Your task to perform on an android device: install app "Viber Messenger" Image 0: 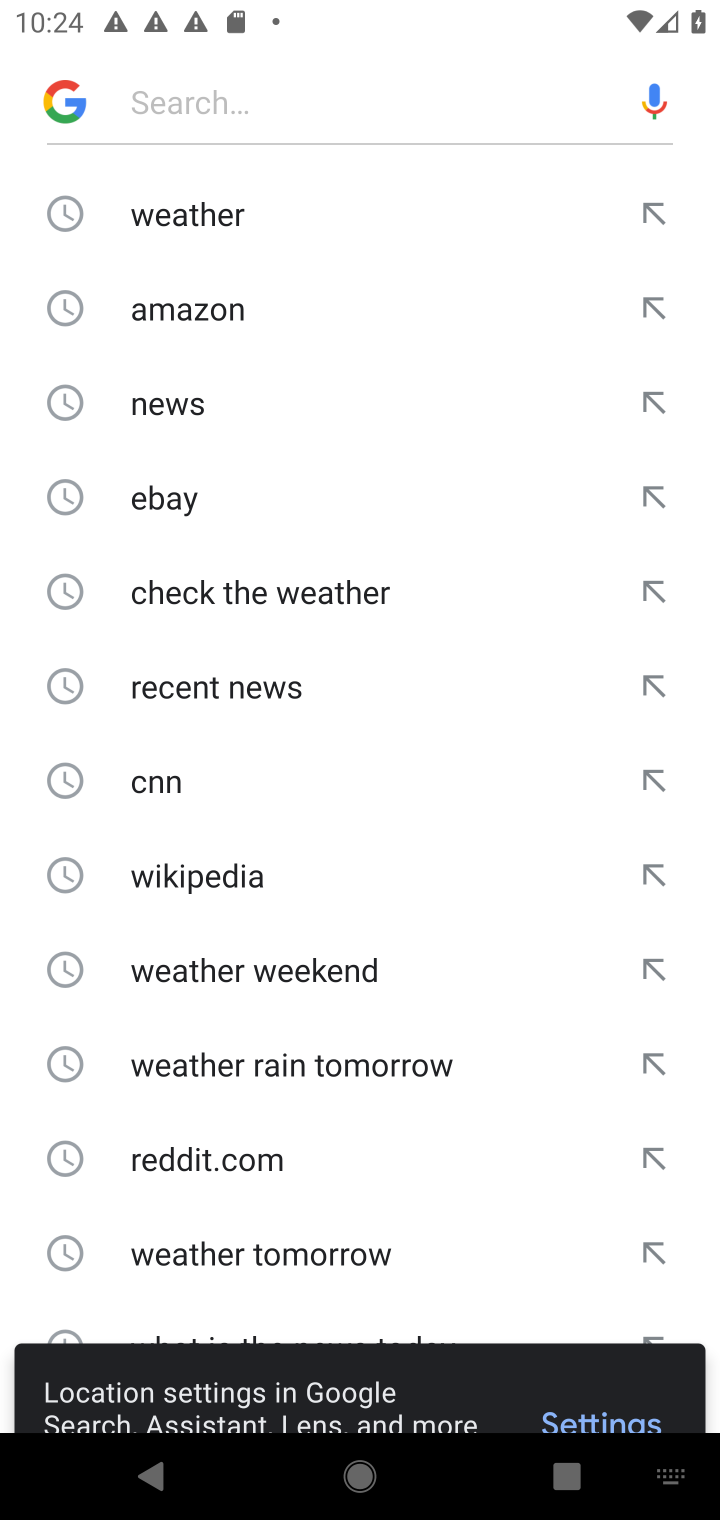
Step 0: press home button
Your task to perform on an android device: install app "Viber Messenger" Image 1: 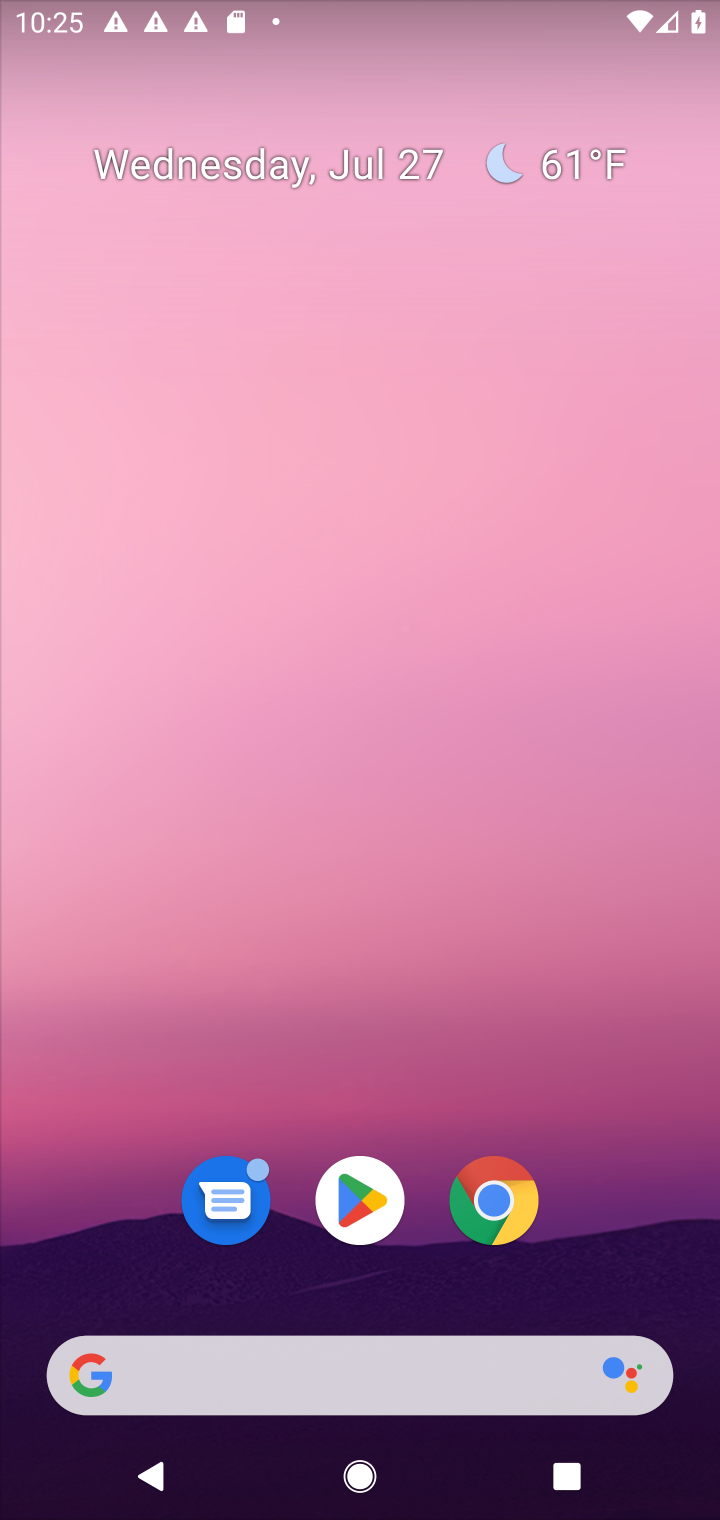
Step 1: click (348, 1195)
Your task to perform on an android device: install app "Viber Messenger" Image 2: 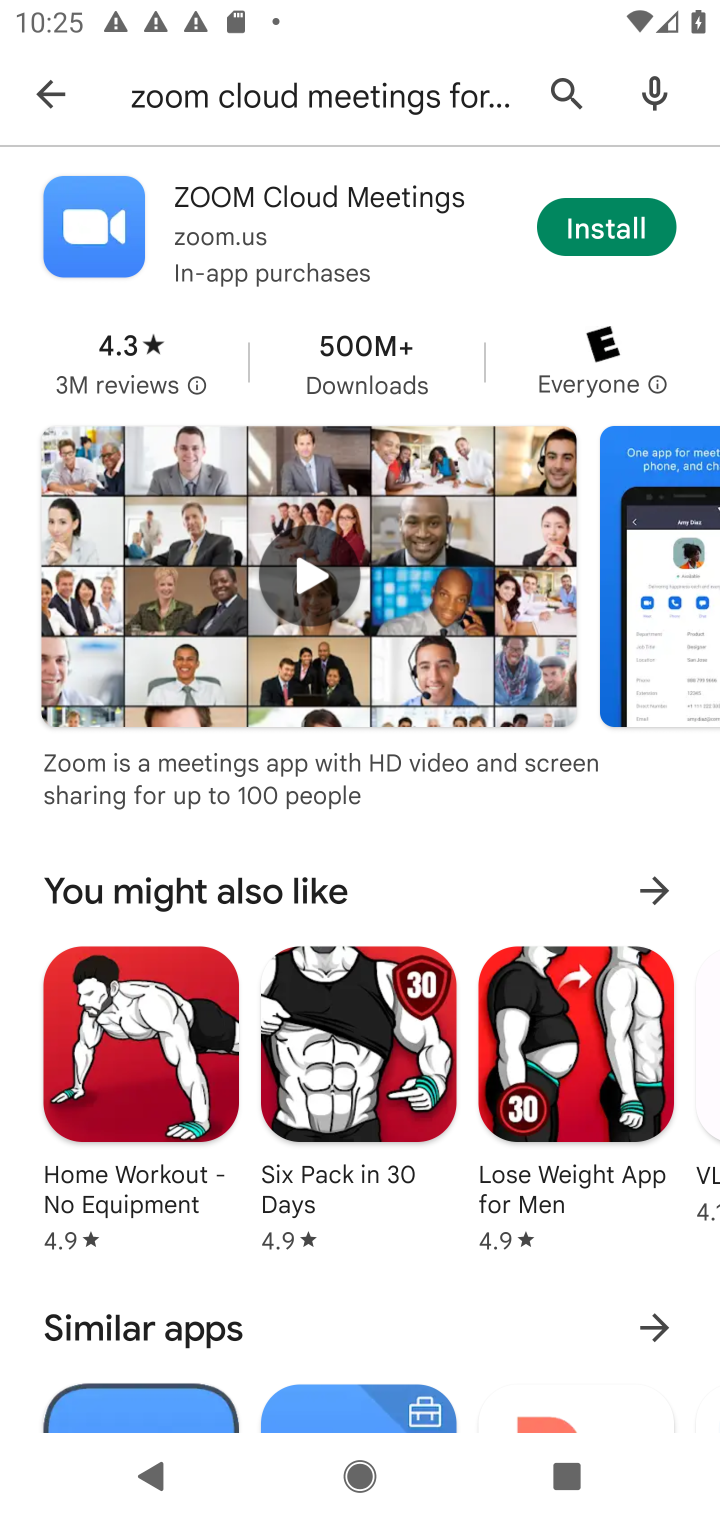
Step 2: click (559, 78)
Your task to perform on an android device: install app "Viber Messenger" Image 3: 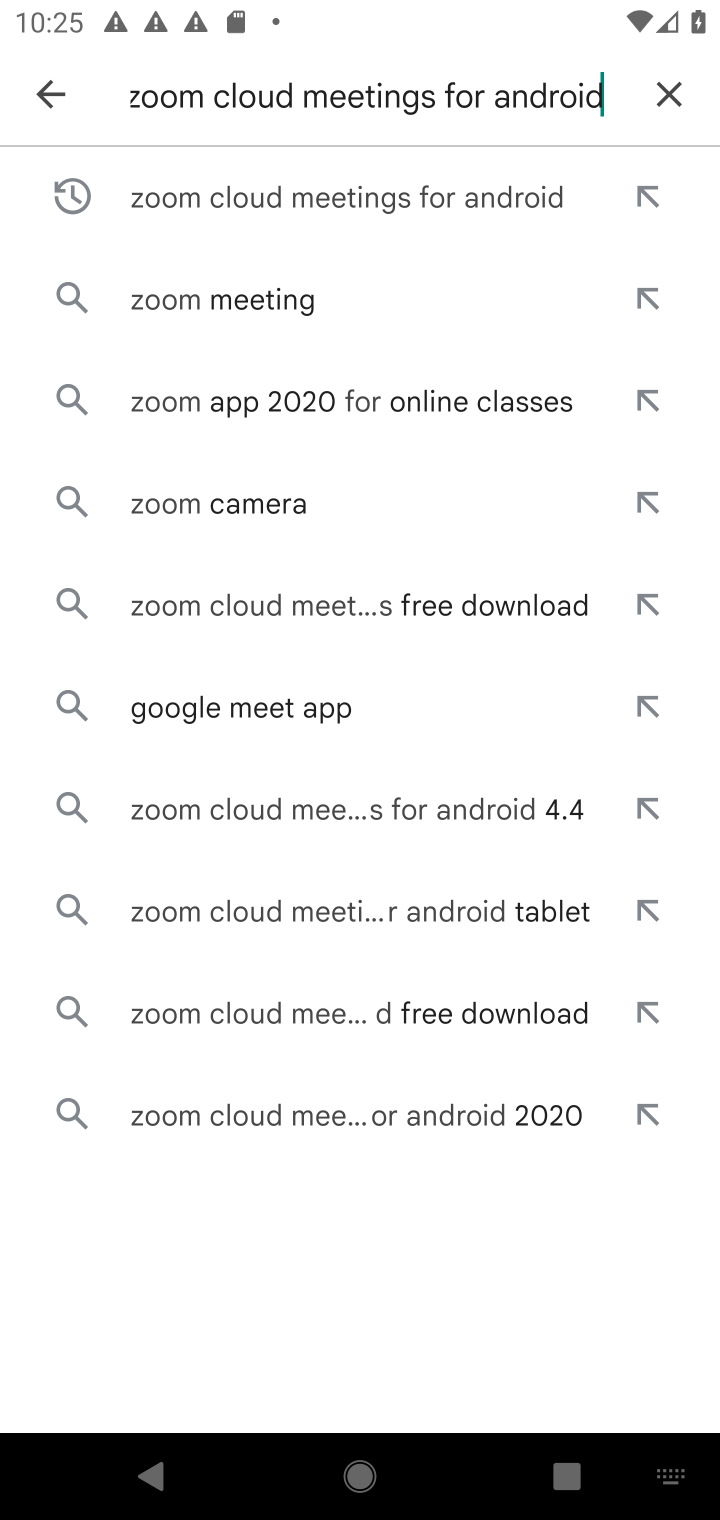
Step 3: click (667, 95)
Your task to perform on an android device: install app "Viber Messenger" Image 4: 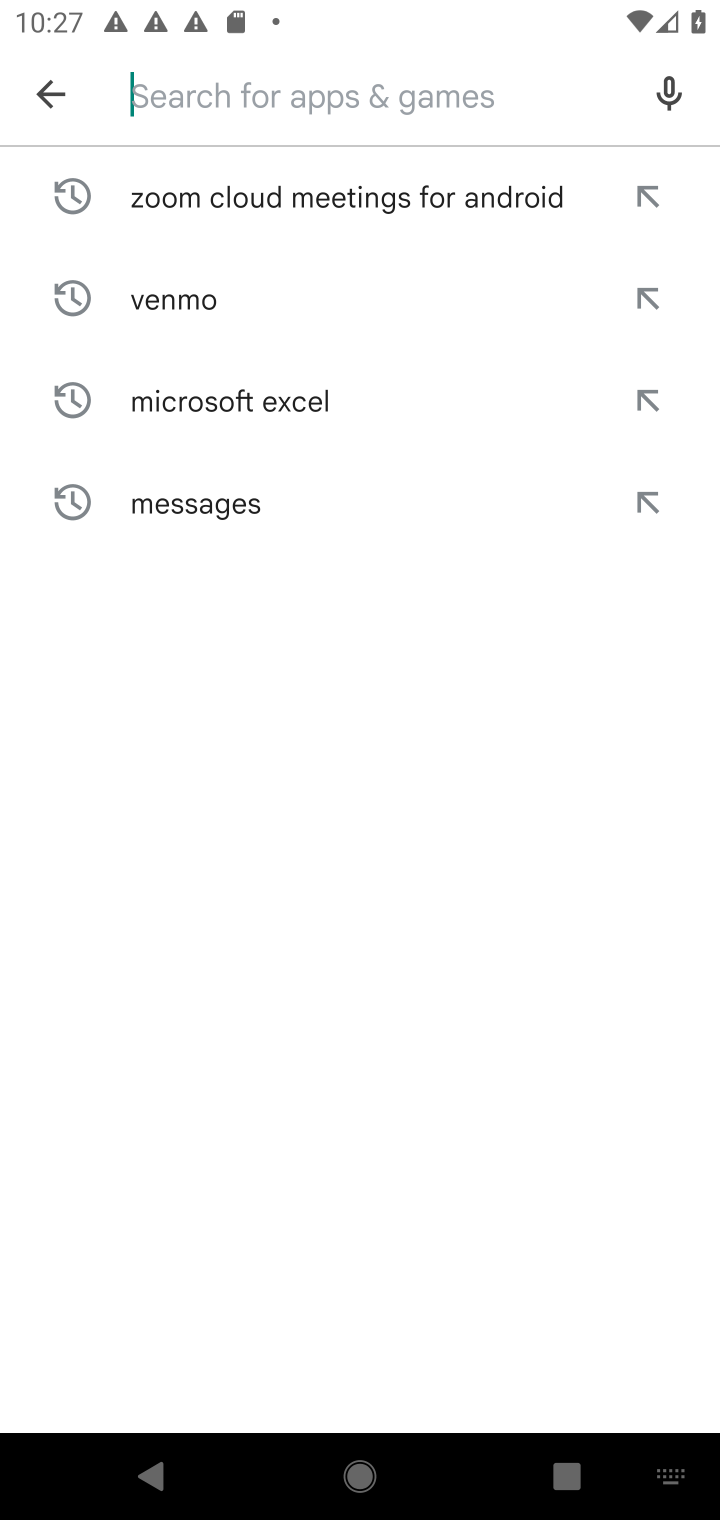
Step 4: type "viber messenger"
Your task to perform on an android device: install app "Viber Messenger" Image 5: 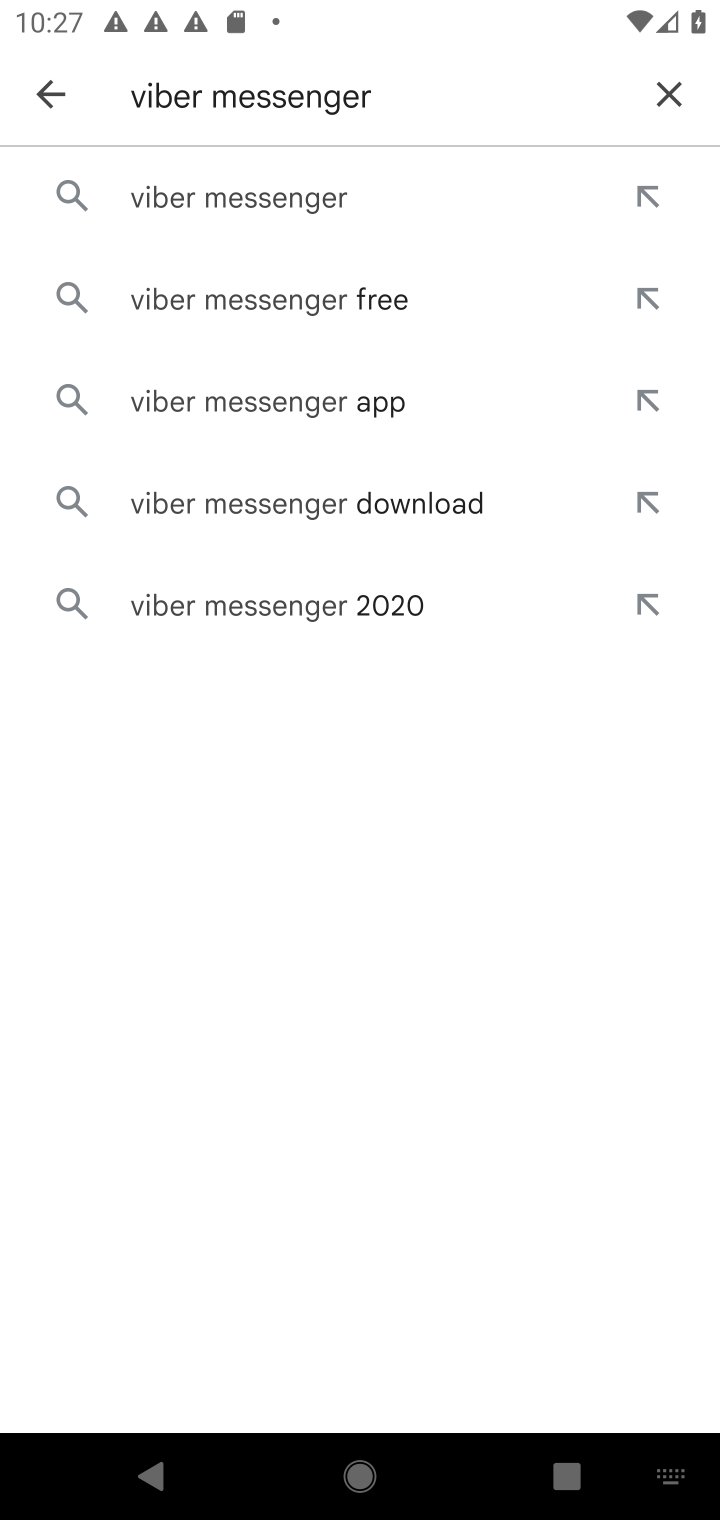
Step 5: click (273, 182)
Your task to perform on an android device: install app "Viber Messenger" Image 6: 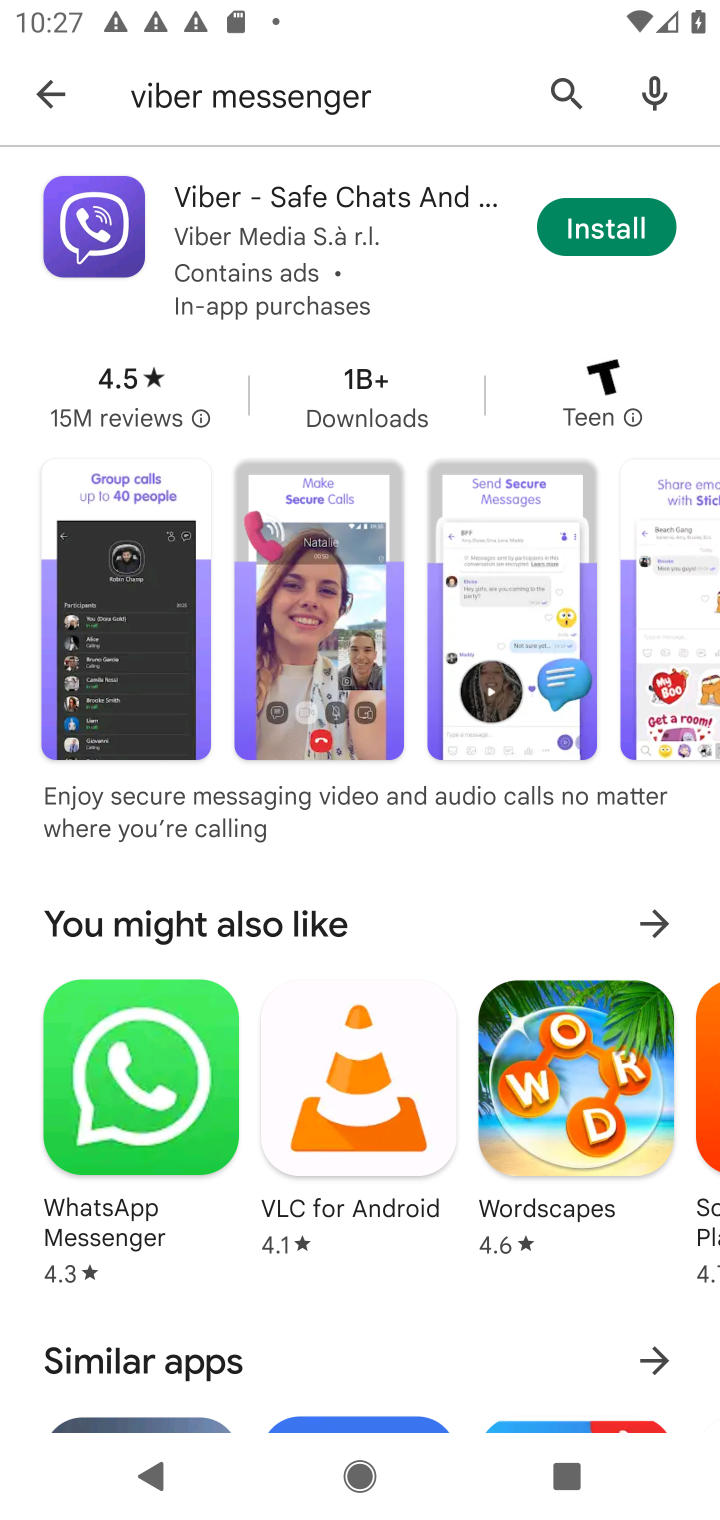
Step 6: click (593, 221)
Your task to perform on an android device: install app "Viber Messenger" Image 7: 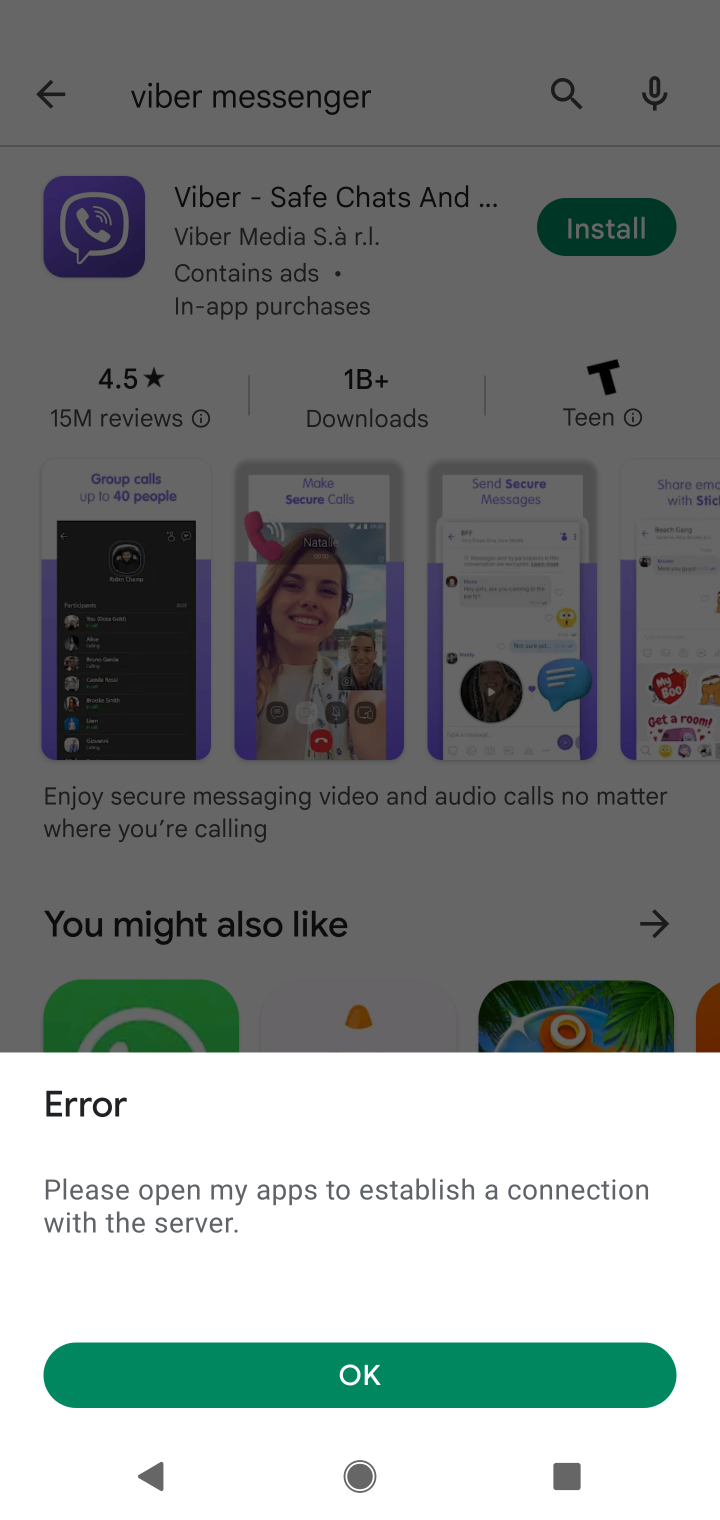
Step 7: click (356, 1359)
Your task to perform on an android device: install app "Viber Messenger" Image 8: 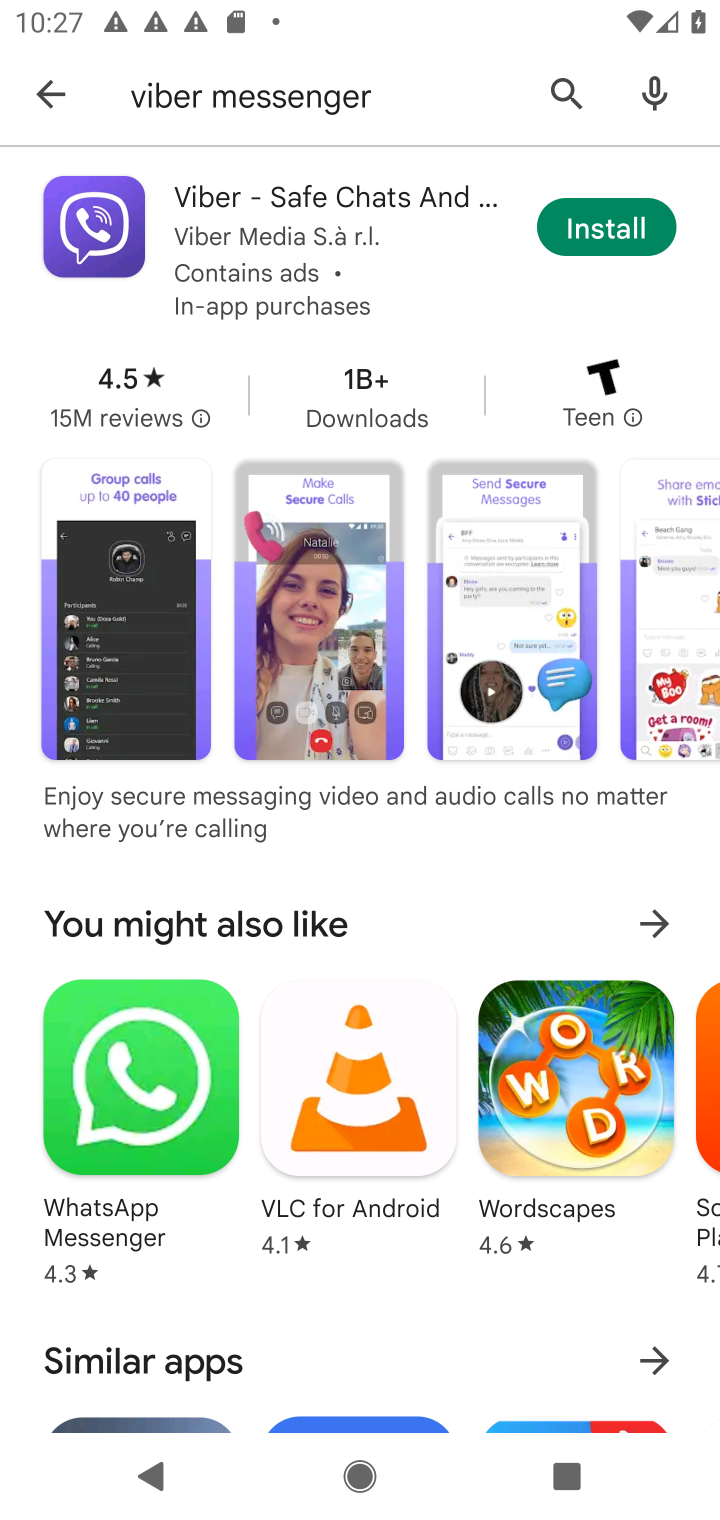
Step 8: click (597, 235)
Your task to perform on an android device: install app "Viber Messenger" Image 9: 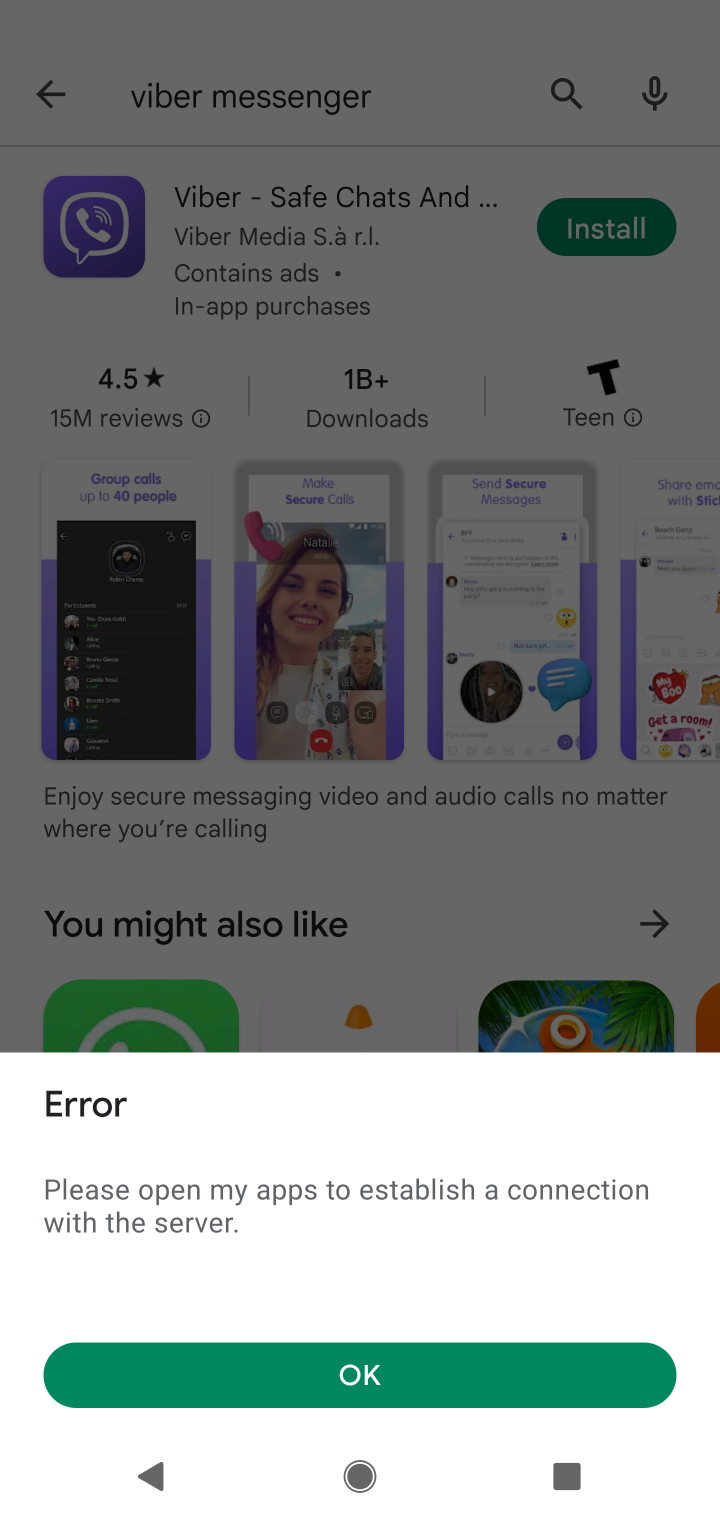
Step 9: click (335, 1360)
Your task to perform on an android device: install app "Viber Messenger" Image 10: 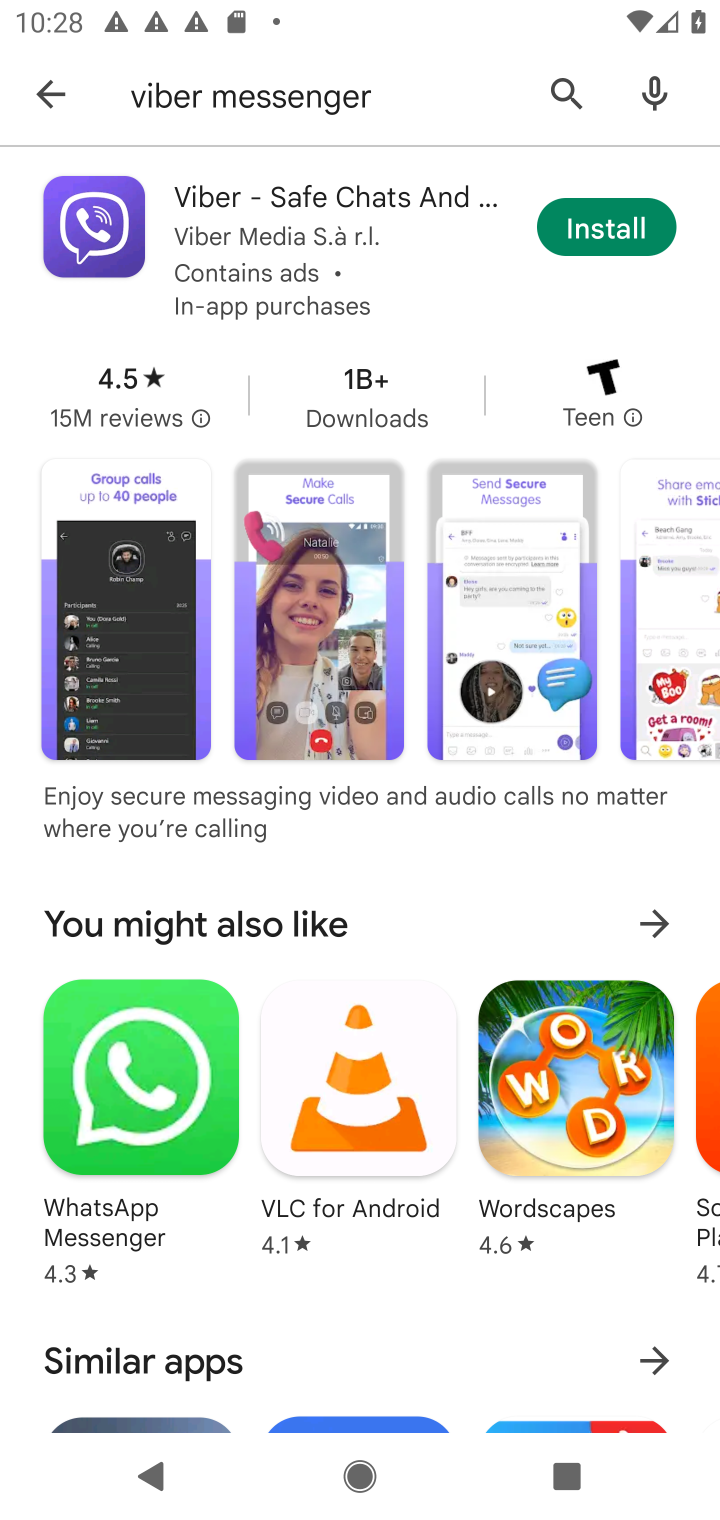
Step 10: click (616, 221)
Your task to perform on an android device: install app "Viber Messenger" Image 11: 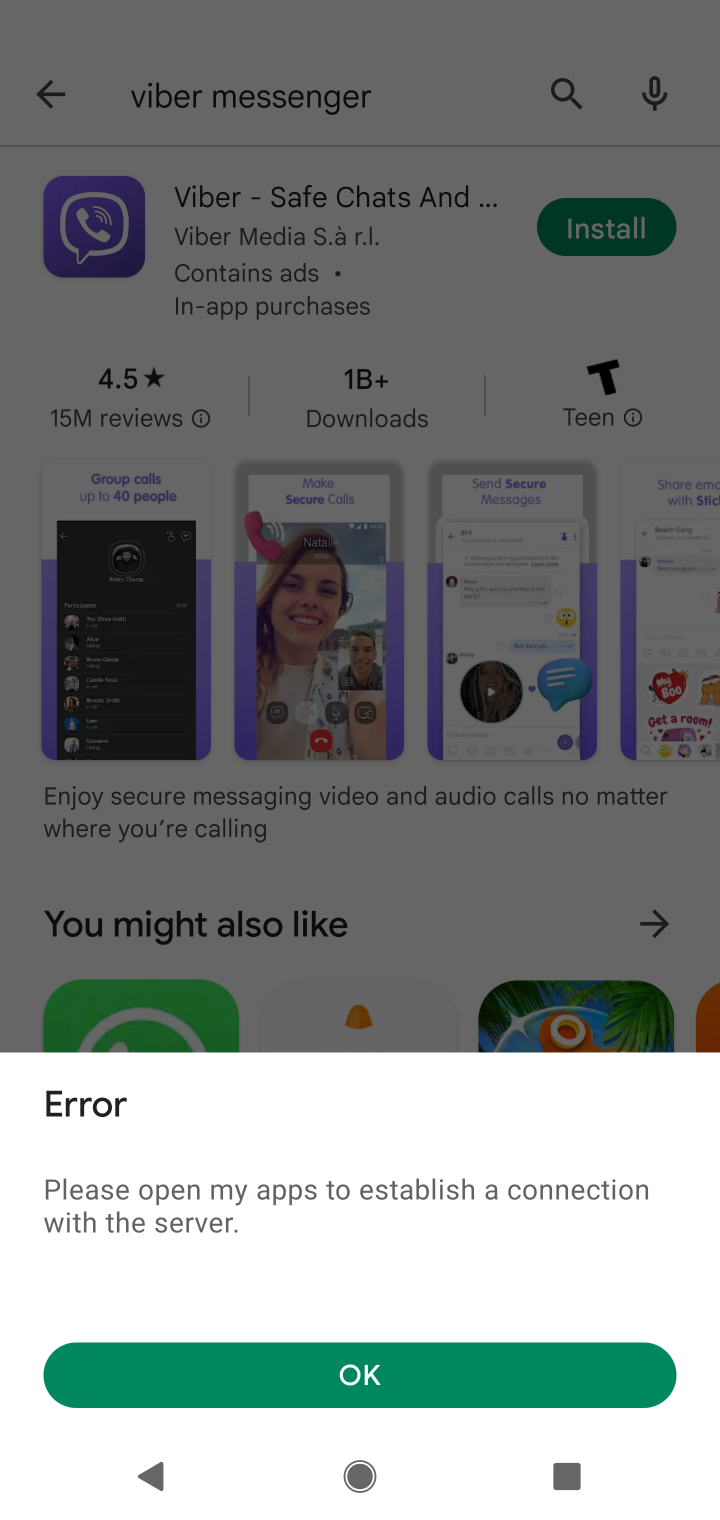
Step 11: click (344, 1371)
Your task to perform on an android device: install app "Viber Messenger" Image 12: 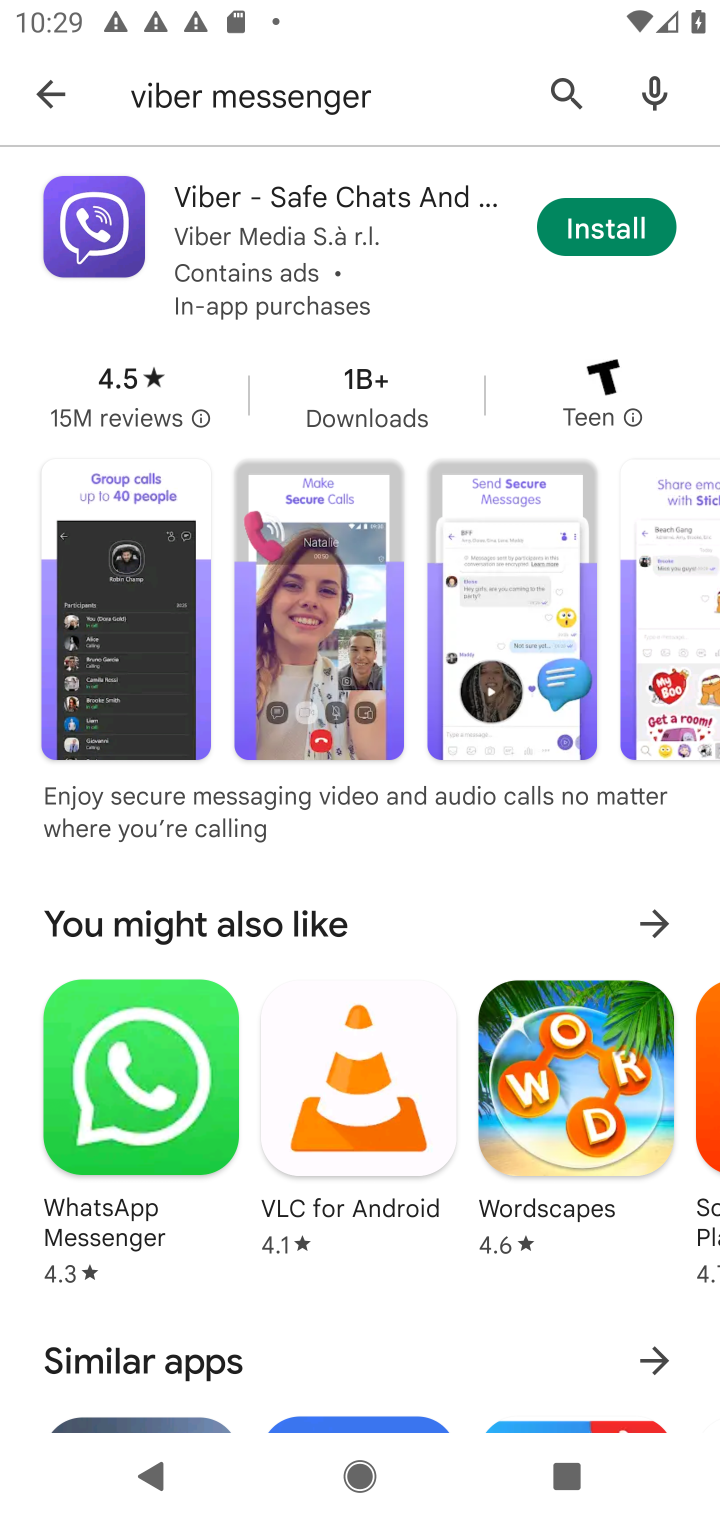
Step 12: task complete